Your task to perform on an android device: toggle location history Image 0: 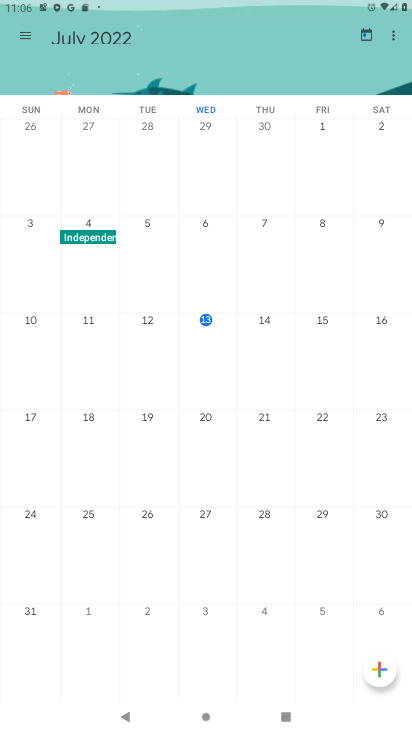
Step 0: press home button
Your task to perform on an android device: toggle location history Image 1: 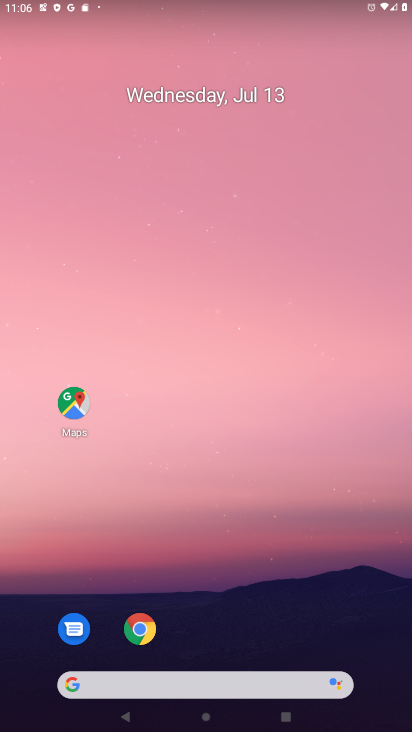
Step 1: drag from (282, 650) to (275, 215)
Your task to perform on an android device: toggle location history Image 2: 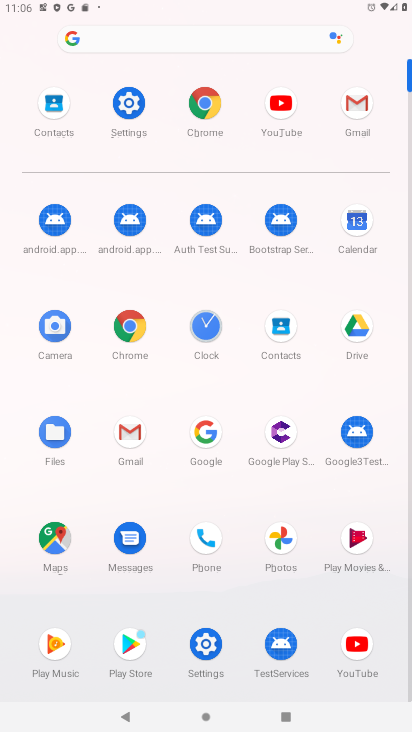
Step 2: click (205, 641)
Your task to perform on an android device: toggle location history Image 3: 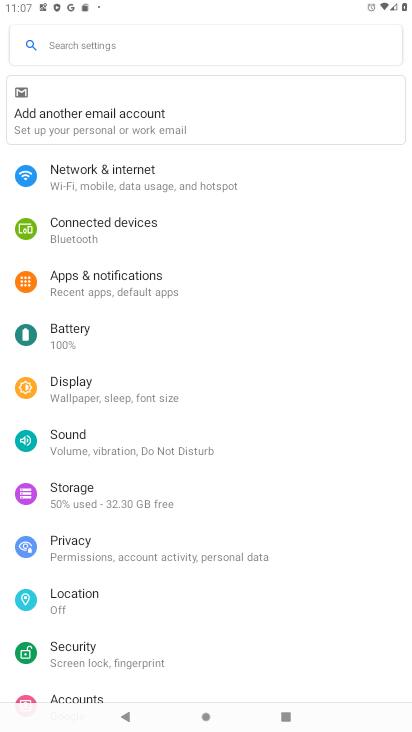
Step 3: click (147, 612)
Your task to perform on an android device: toggle location history Image 4: 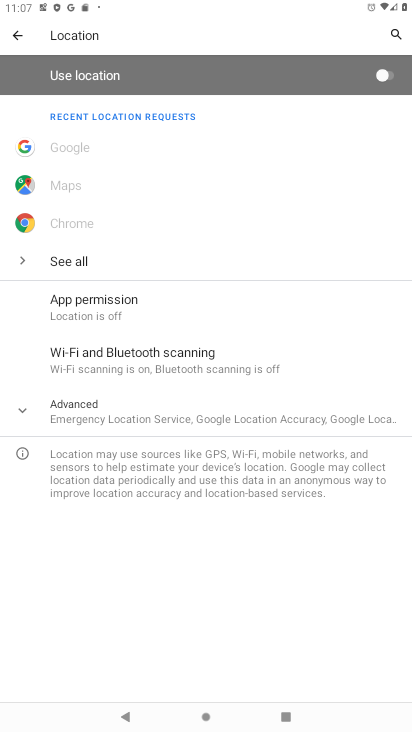
Step 4: click (167, 414)
Your task to perform on an android device: toggle location history Image 5: 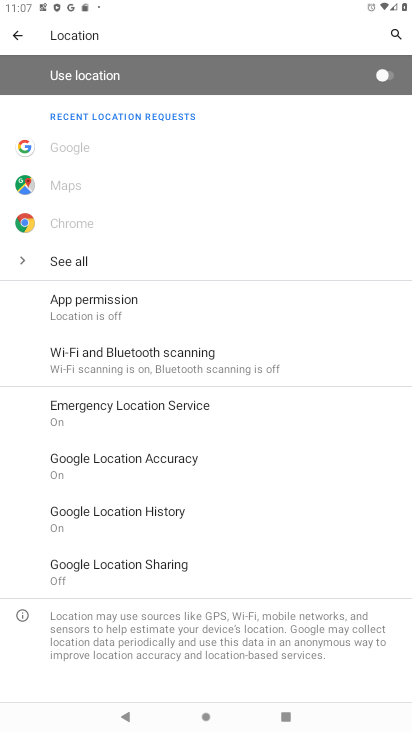
Step 5: click (157, 495)
Your task to perform on an android device: toggle location history Image 6: 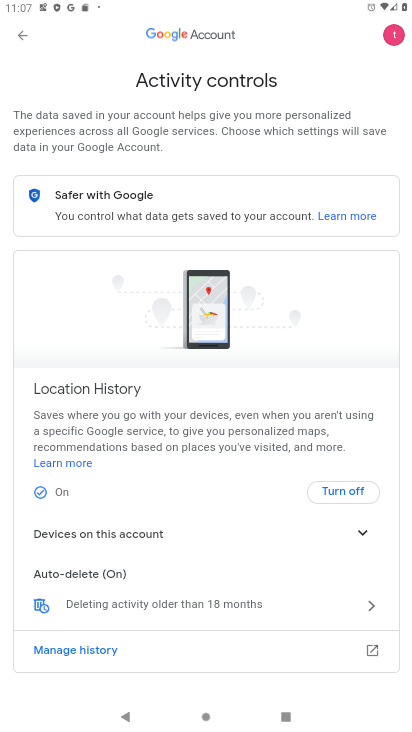
Step 6: click (106, 642)
Your task to perform on an android device: toggle location history Image 7: 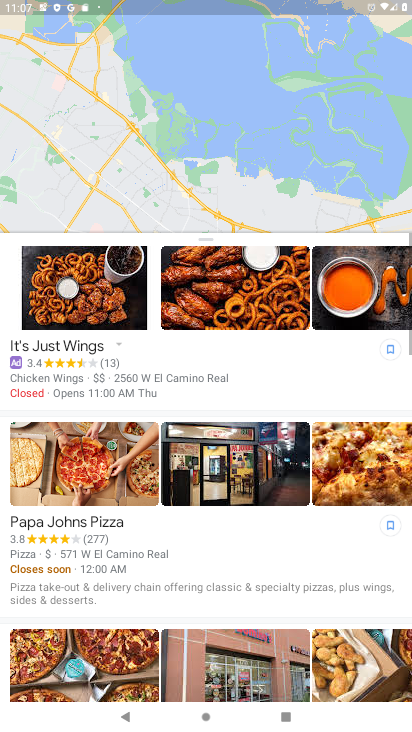
Step 7: task complete